Your task to perform on an android device: turn smart compose on in the gmail app Image 0: 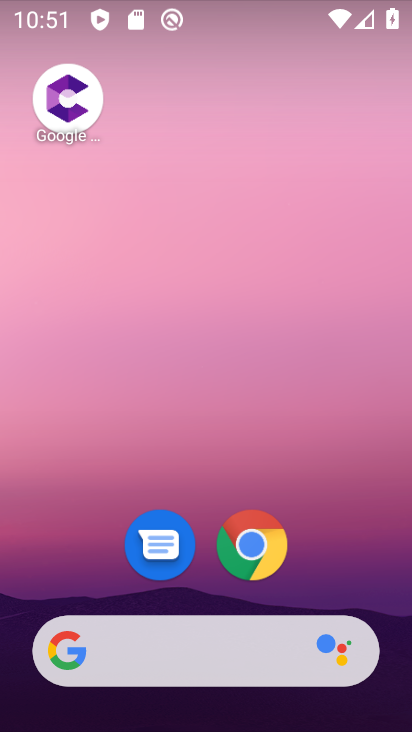
Step 0: drag from (211, 625) to (231, 63)
Your task to perform on an android device: turn smart compose on in the gmail app Image 1: 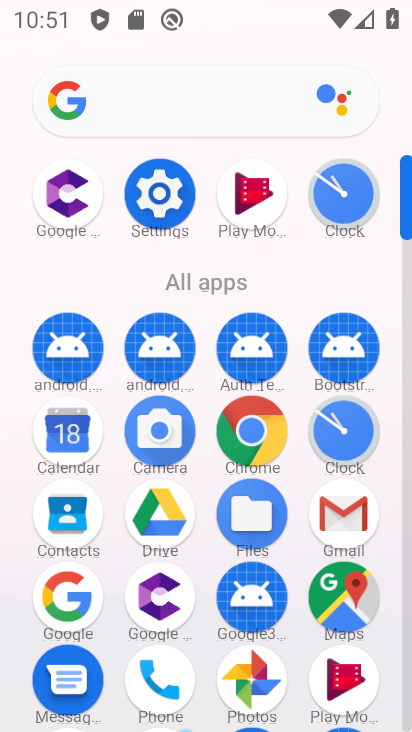
Step 1: click (337, 509)
Your task to perform on an android device: turn smart compose on in the gmail app Image 2: 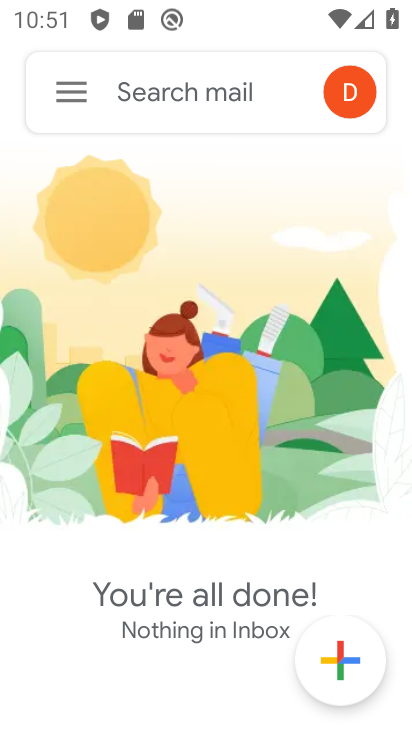
Step 2: click (49, 88)
Your task to perform on an android device: turn smart compose on in the gmail app Image 3: 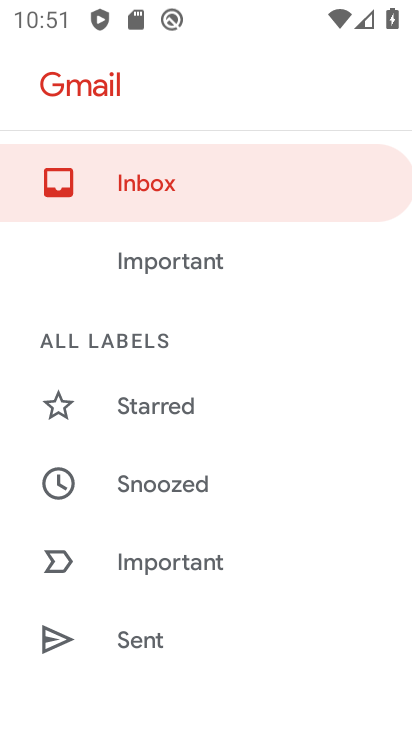
Step 3: drag from (247, 644) to (195, 119)
Your task to perform on an android device: turn smart compose on in the gmail app Image 4: 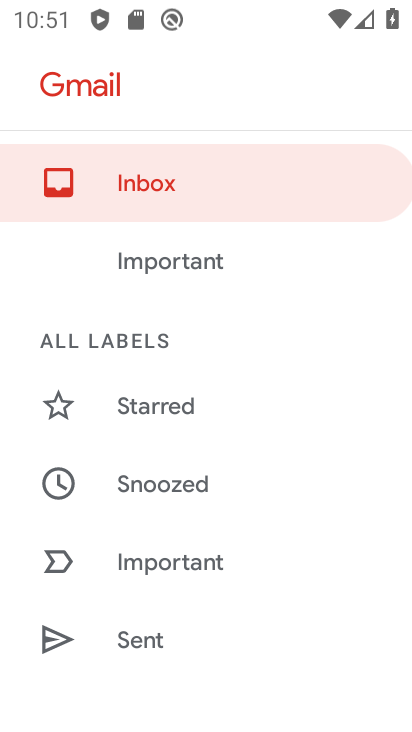
Step 4: drag from (229, 668) to (237, 184)
Your task to perform on an android device: turn smart compose on in the gmail app Image 5: 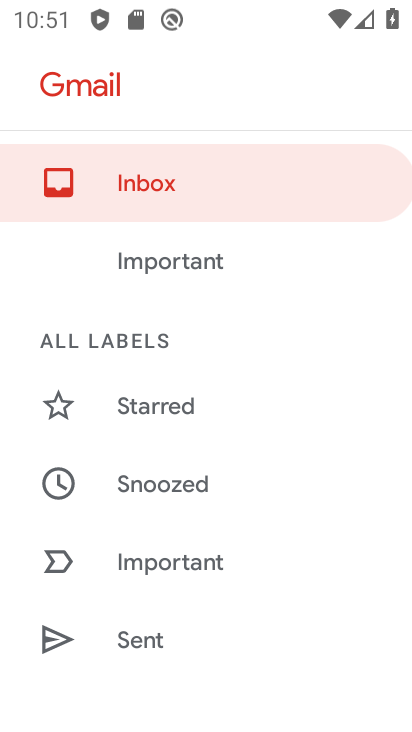
Step 5: drag from (199, 664) to (177, 149)
Your task to perform on an android device: turn smart compose on in the gmail app Image 6: 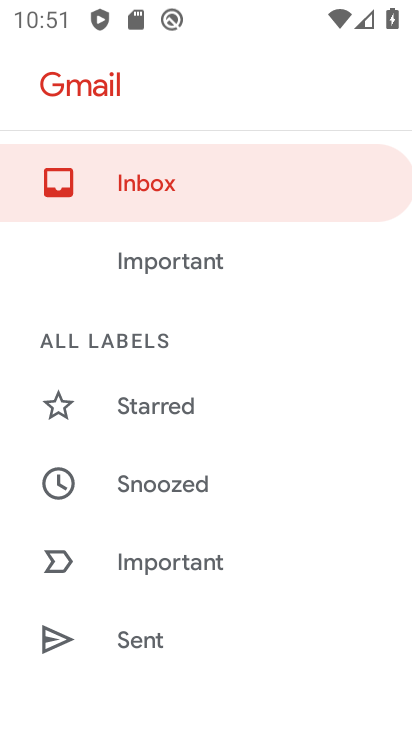
Step 6: drag from (139, 596) to (240, 35)
Your task to perform on an android device: turn smart compose on in the gmail app Image 7: 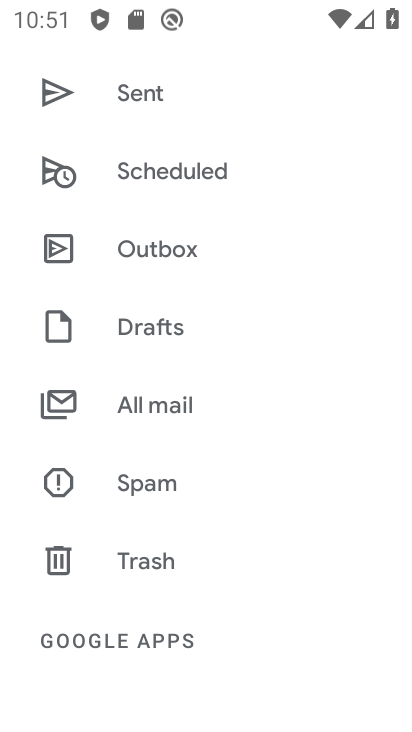
Step 7: drag from (170, 616) to (196, 132)
Your task to perform on an android device: turn smart compose on in the gmail app Image 8: 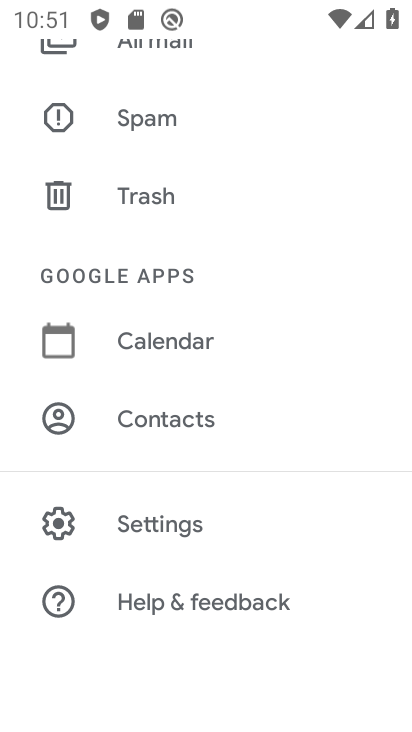
Step 8: click (249, 525)
Your task to perform on an android device: turn smart compose on in the gmail app Image 9: 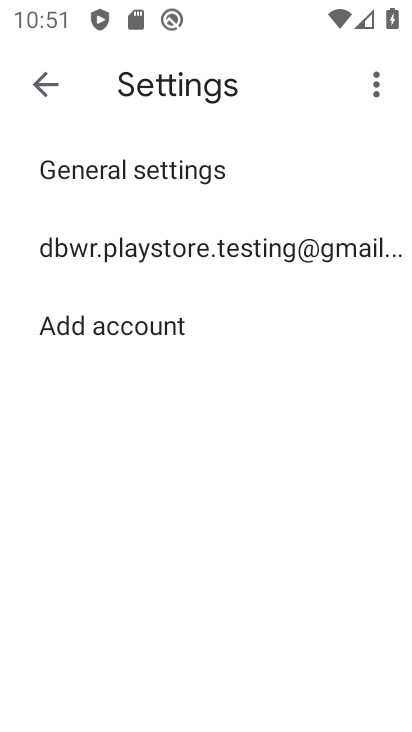
Step 9: click (263, 255)
Your task to perform on an android device: turn smart compose on in the gmail app Image 10: 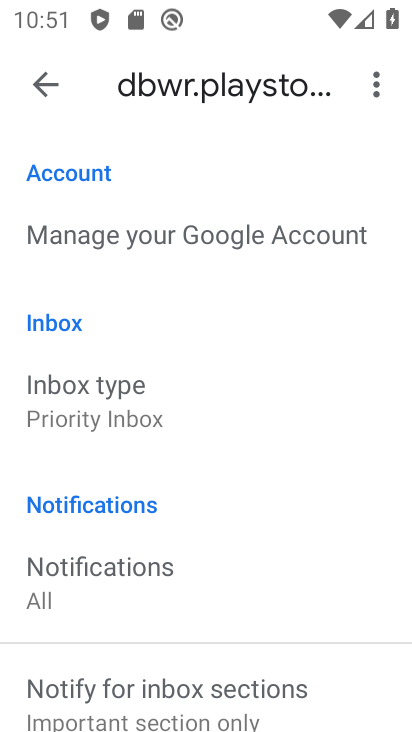
Step 10: task complete